Your task to perform on an android device: Open calendar and show me the third week of next month Image 0: 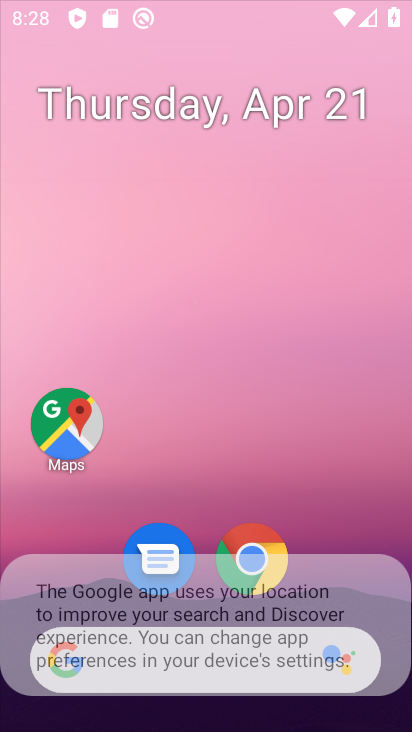
Step 0: press home button
Your task to perform on an android device: Open calendar and show me the third week of next month Image 1: 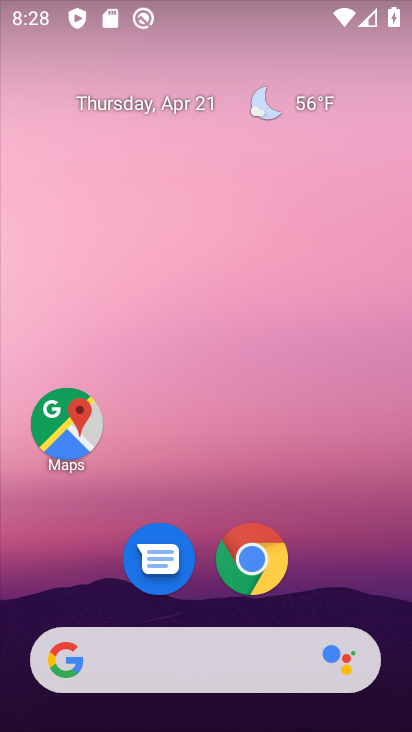
Step 1: drag from (341, 585) to (284, 223)
Your task to perform on an android device: Open calendar and show me the third week of next month Image 2: 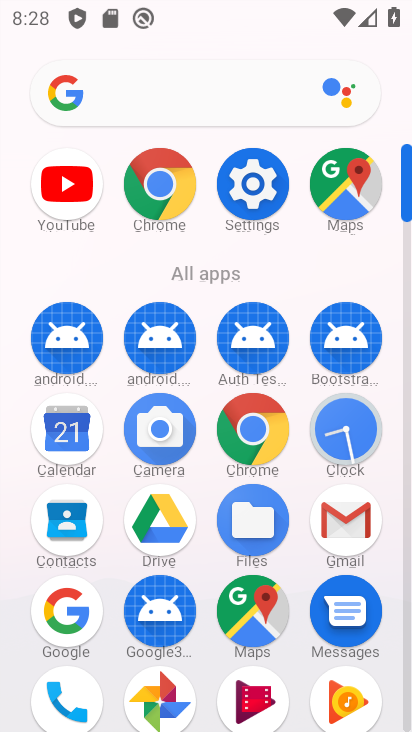
Step 2: click (60, 442)
Your task to perform on an android device: Open calendar and show me the third week of next month Image 3: 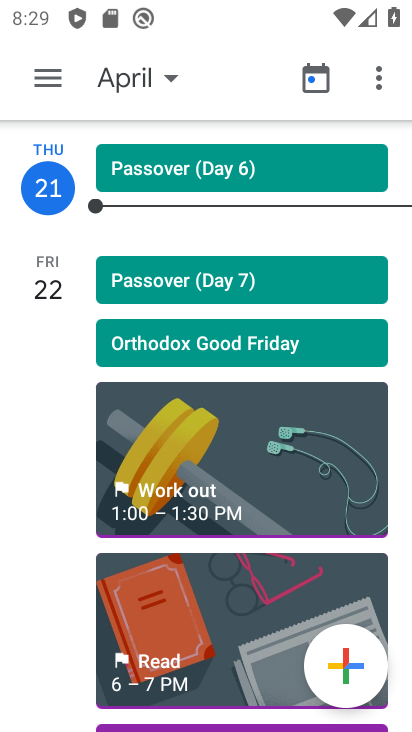
Step 3: click (117, 76)
Your task to perform on an android device: Open calendar and show me the third week of next month Image 4: 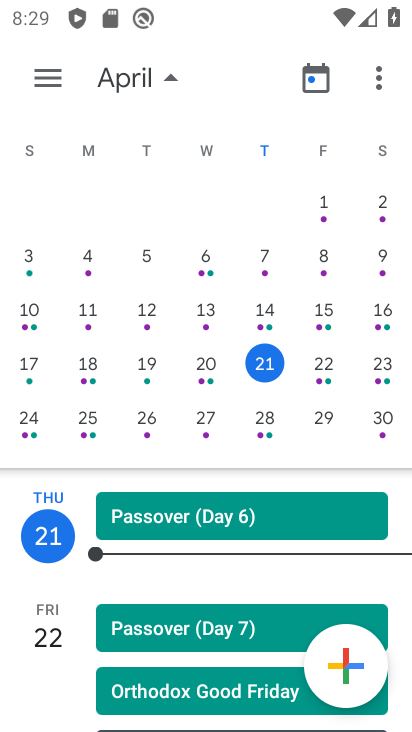
Step 4: drag from (218, 381) to (52, 381)
Your task to perform on an android device: Open calendar and show me the third week of next month Image 5: 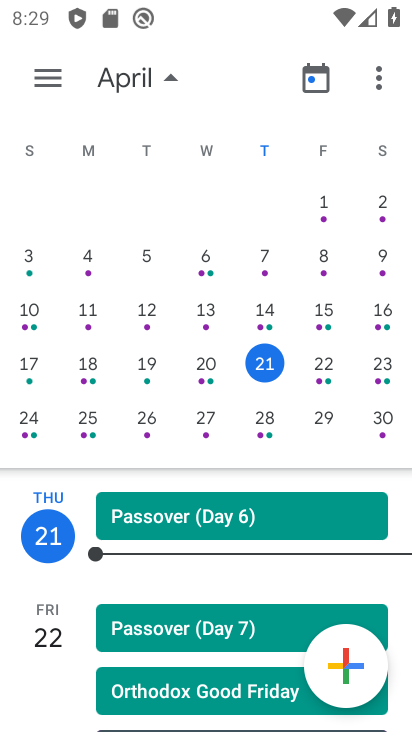
Step 5: drag from (340, 383) to (12, 402)
Your task to perform on an android device: Open calendar and show me the third week of next month Image 6: 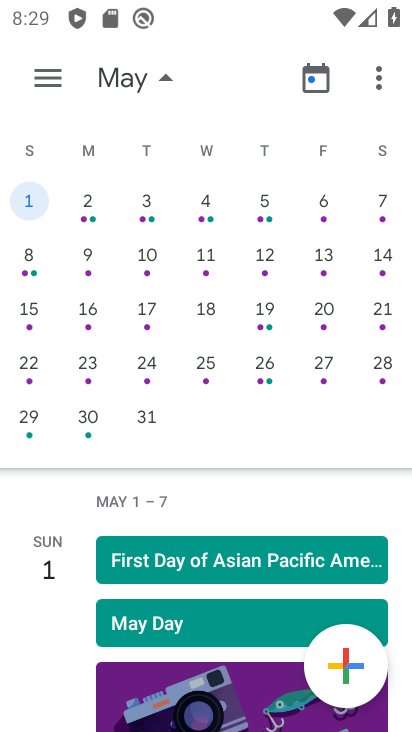
Step 6: click (33, 311)
Your task to perform on an android device: Open calendar and show me the third week of next month Image 7: 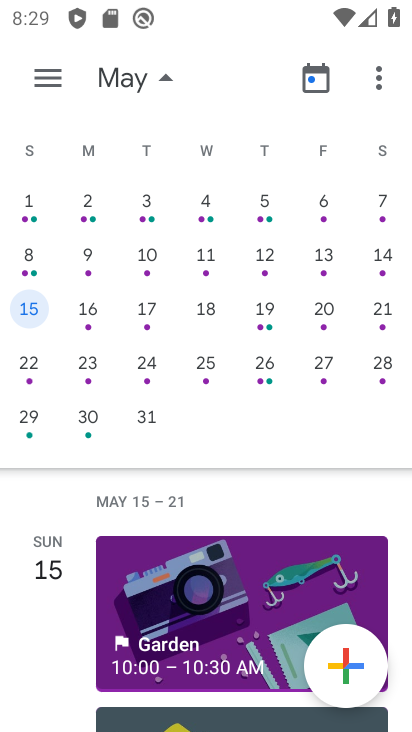
Step 7: click (89, 324)
Your task to perform on an android device: Open calendar and show me the third week of next month Image 8: 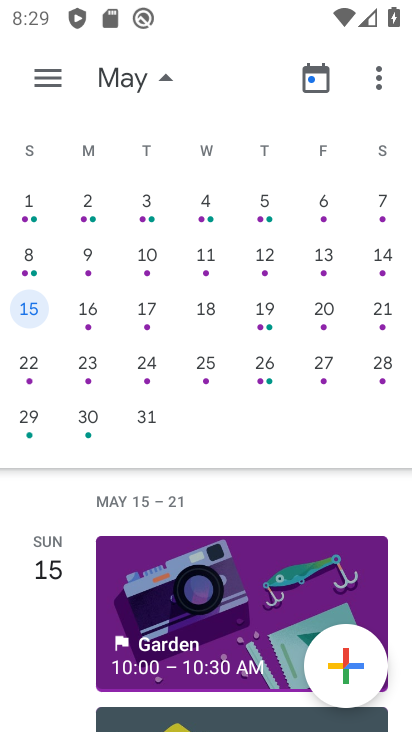
Step 8: click (215, 311)
Your task to perform on an android device: Open calendar and show me the third week of next month Image 9: 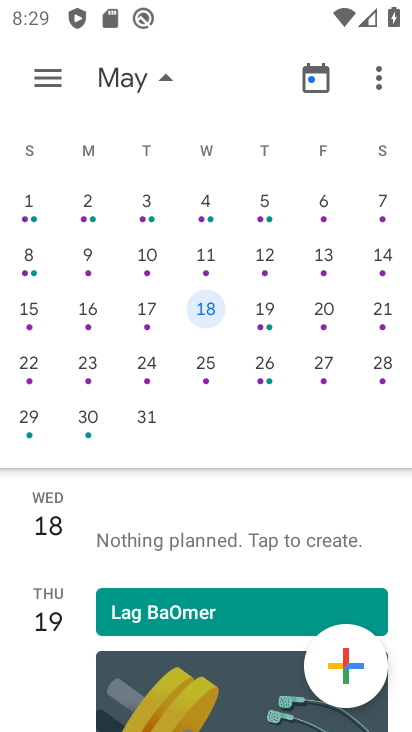
Step 9: click (266, 317)
Your task to perform on an android device: Open calendar and show me the third week of next month Image 10: 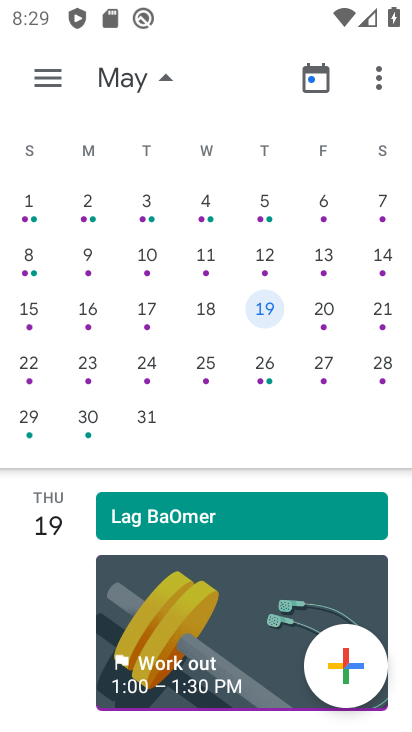
Step 10: click (321, 326)
Your task to perform on an android device: Open calendar and show me the third week of next month Image 11: 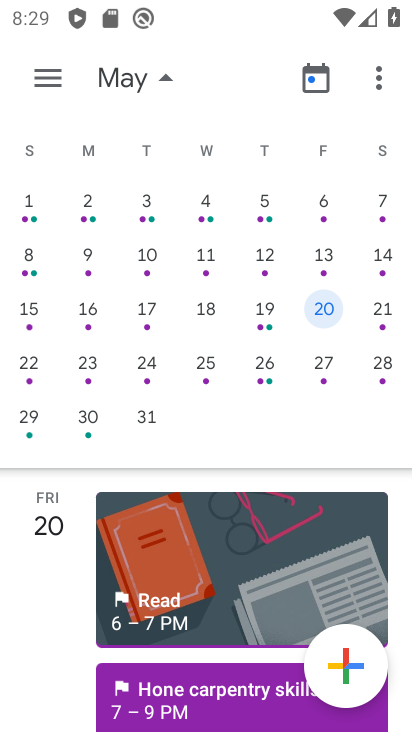
Step 11: click (381, 320)
Your task to perform on an android device: Open calendar and show me the third week of next month Image 12: 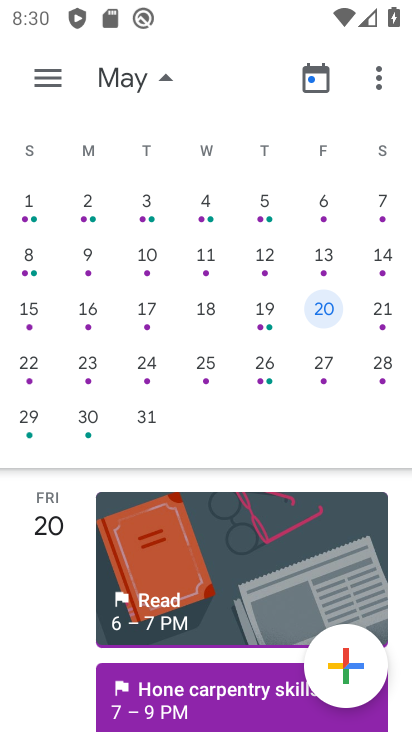
Step 12: click (385, 310)
Your task to perform on an android device: Open calendar and show me the third week of next month Image 13: 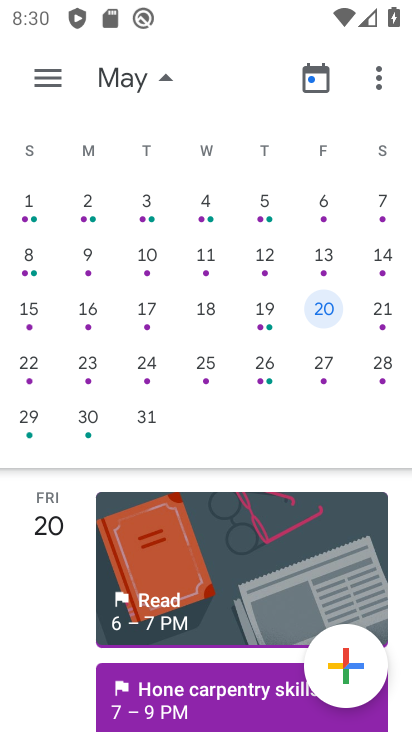
Step 13: click (377, 317)
Your task to perform on an android device: Open calendar and show me the third week of next month Image 14: 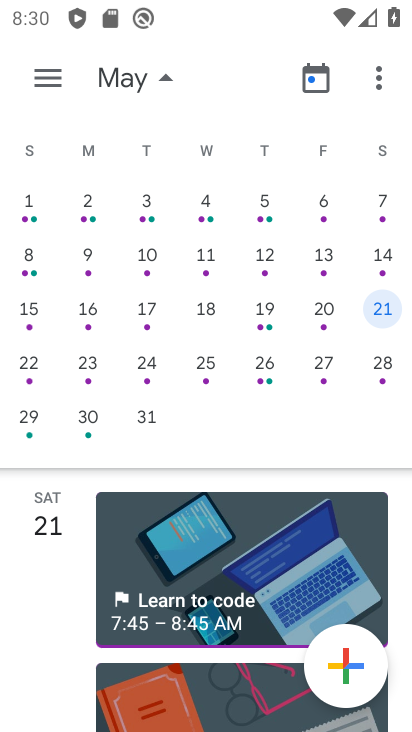
Step 14: task complete